Your task to perform on an android device: Open calendar and show me the fourth week of next month Image 0: 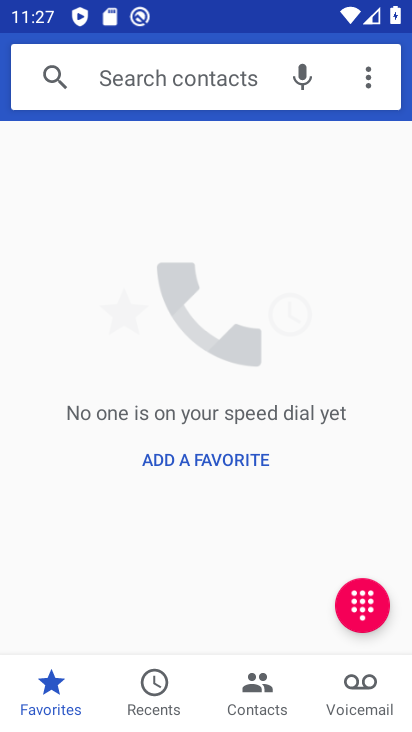
Step 0: press home button
Your task to perform on an android device: Open calendar and show me the fourth week of next month Image 1: 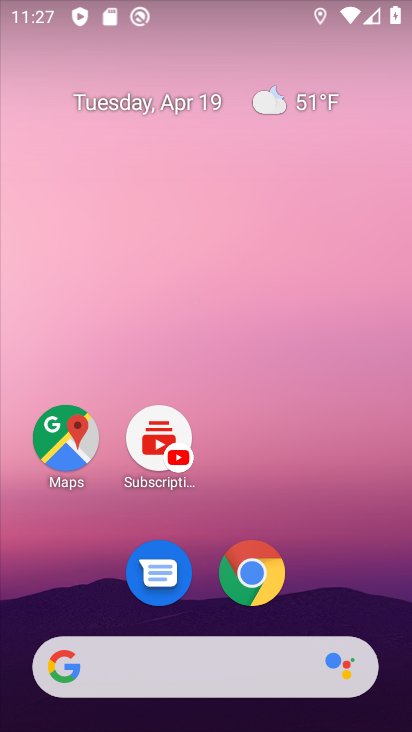
Step 1: drag from (319, 496) to (318, 205)
Your task to perform on an android device: Open calendar and show me the fourth week of next month Image 2: 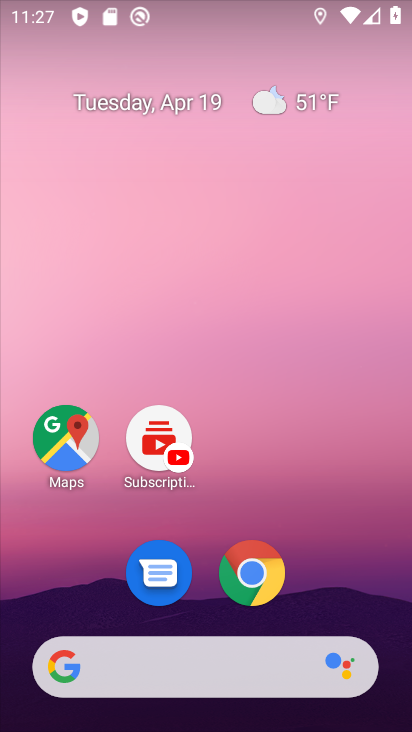
Step 2: drag from (340, 500) to (311, 139)
Your task to perform on an android device: Open calendar and show me the fourth week of next month Image 3: 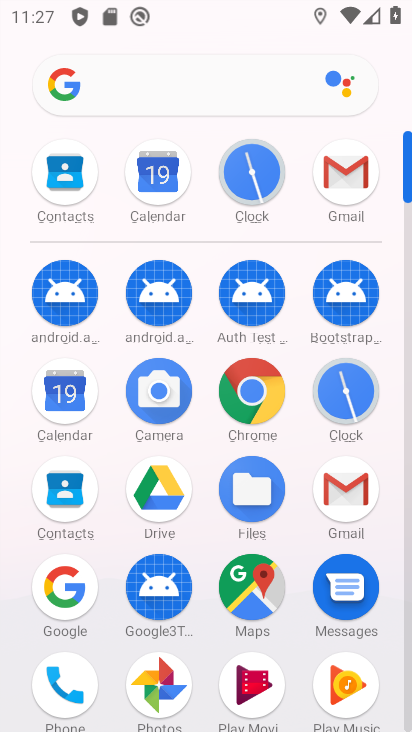
Step 3: click (150, 167)
Your task to perform on an android device: Open calendar and show me the fourth week of next month Image 4: 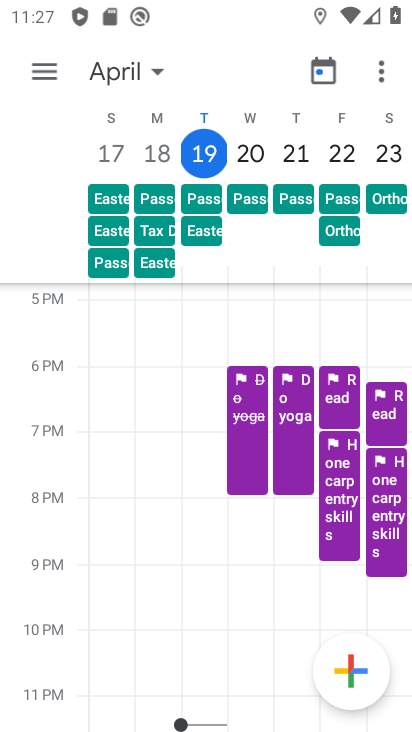
Step 4: click (149, 77)
Your task to perform on an android device: Open calendar and show me the fourth week of next month Image 5: 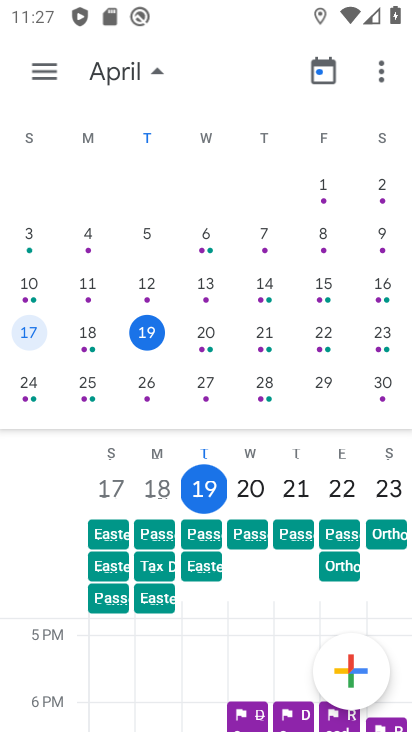
Step 5: drag from (356, 330) to (10, 323)
Your task to perform on an android device: Open calendar and show me the fourth week of next month Image 6: 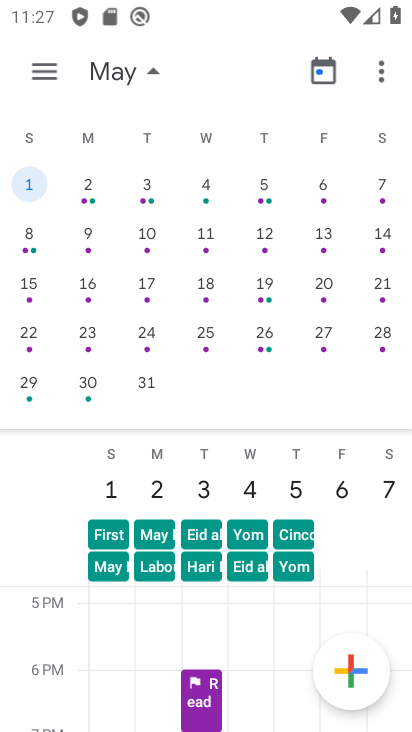
Step 6: click (25, 331)
Your task to perform on an android device: Open calendar and show me the fourth week of next month Image 7: 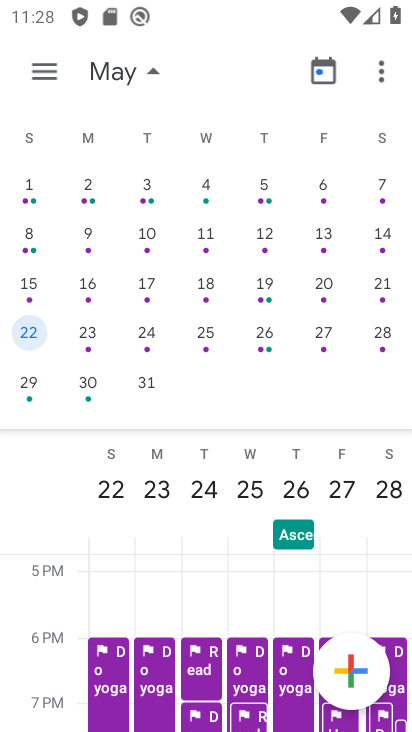
Step 7: click (45, 78)
Your task to perform on an android device: Open calendar and show me the fourth week of next month Image 8: 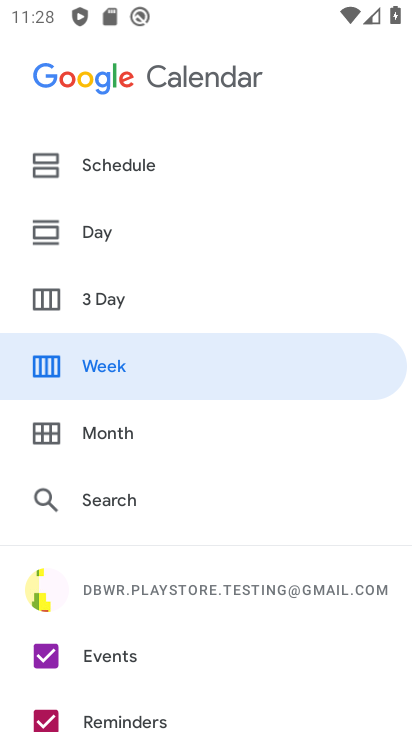
Step 8: click (78, 370)
Your task to perform on an android device: Open calendar and show me the fourth week of next month Image 9: 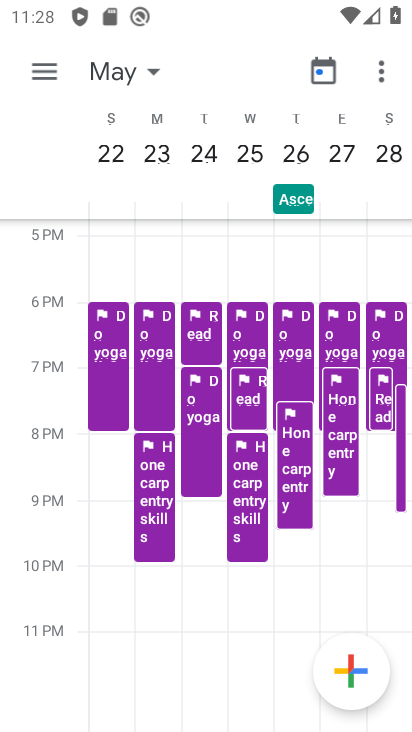
Step 9: task complete